Your task to perform on an android device: turn on sleep mode Image 0: 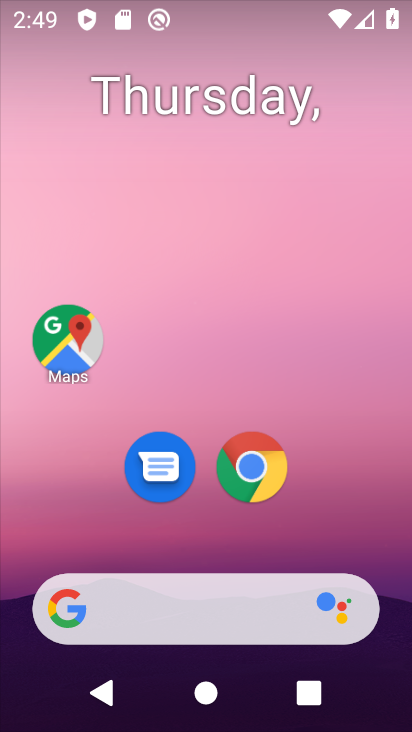
Step 0: drag from (214, 622) to (178, 200)
Your task to perform on an android device: turn on sleep mode Image 1: 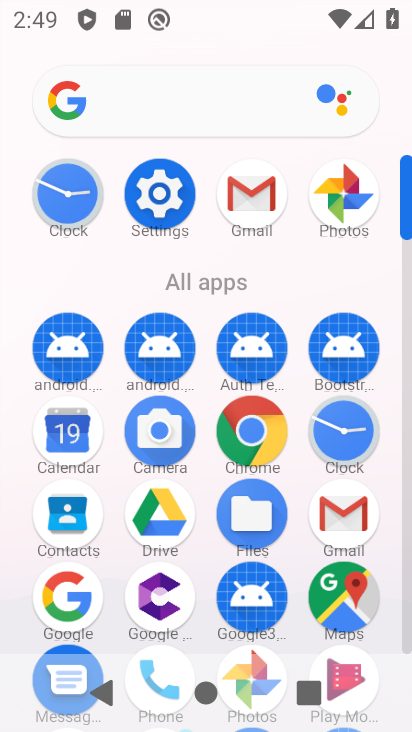
Step 1: click (150, 223)
Your task to perform on an android device: turn on sleep mode Image 2: 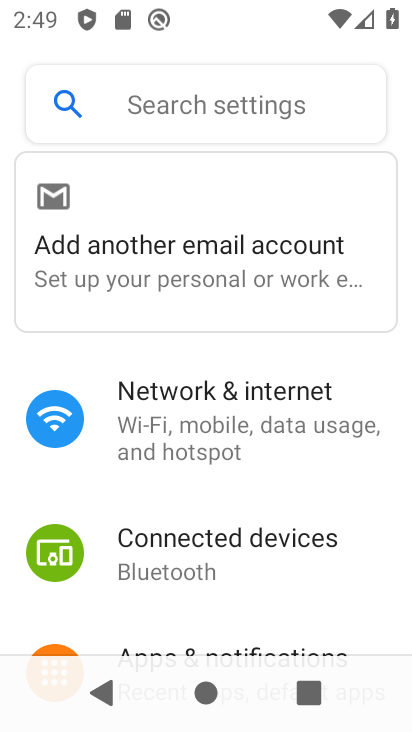
Step 2: drag from (226, 535) to (199, 124)
Your task to perform on an android device: turn on sleep mode Image 3: 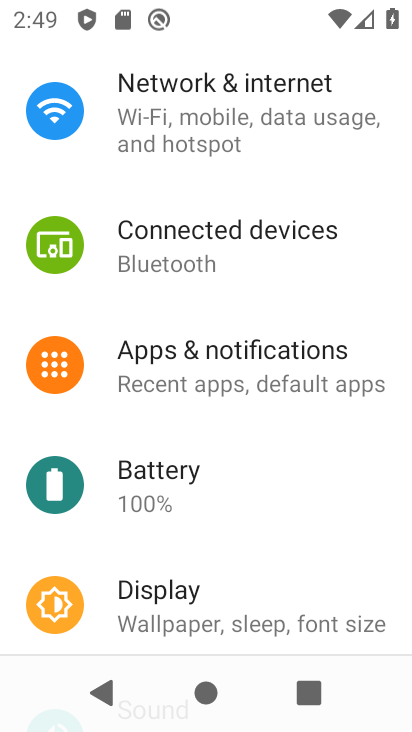
Step 3: drag from (169, 615) to (207, 50)
Your task to perform on an android device: turn on sleep mode Image 4: 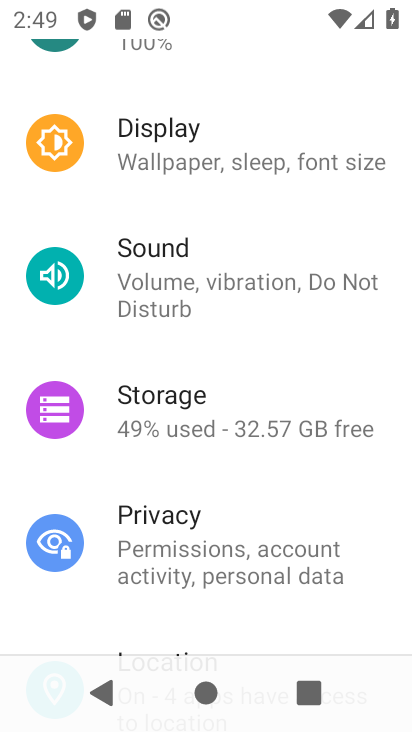
Step 4: drag from (236, 519) to (179, 0)
Your task to perform on an android device: turn on sleep mode Image 5: 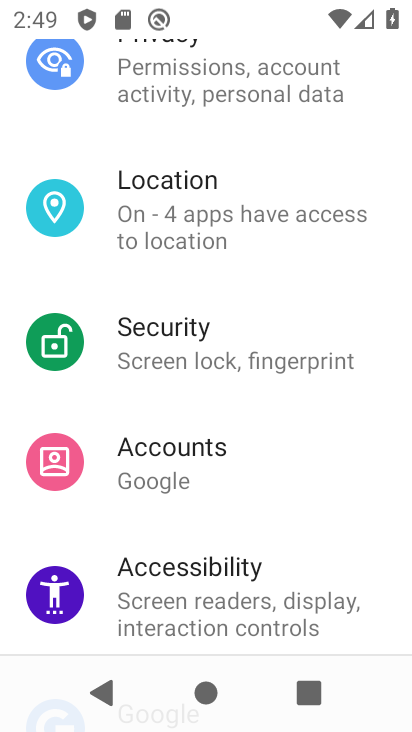
Step 5: drag from (220, 146) to (216, 714)
Your task to perform on an android device: turn on sleep mode Image 6: 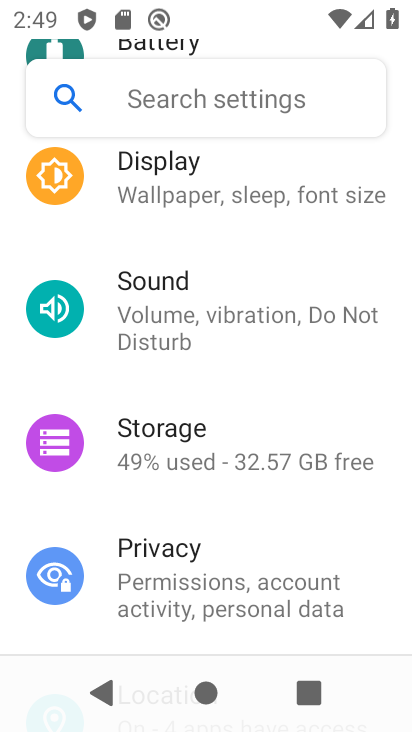
Step 6: click (154, 170)
Your task to perform on an android device: turn on sleep mode Image 7: 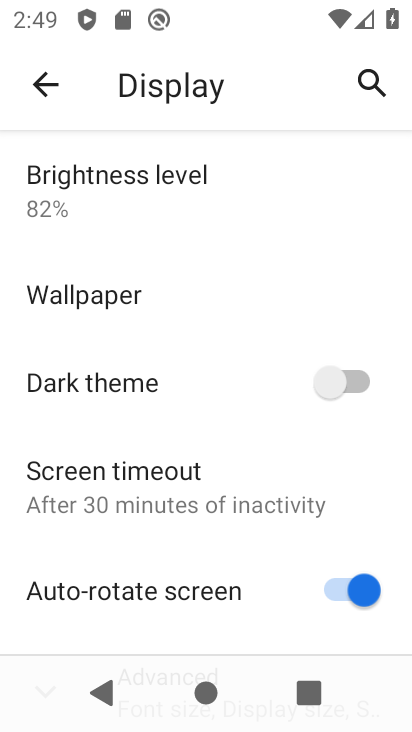
Step 7: drag from (195, 527) to (196, 164)
Your task to perform on an android device: turn on sleep mode Image 8: 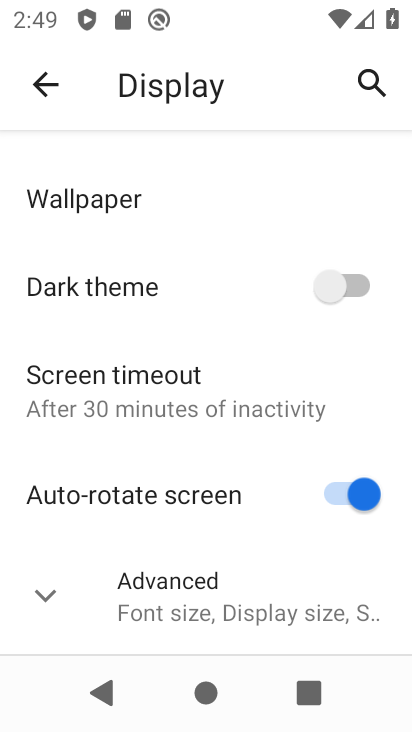
Step 8: click (205, 622)
Your task to perform on an android device: turn on sleep mode Image 9: 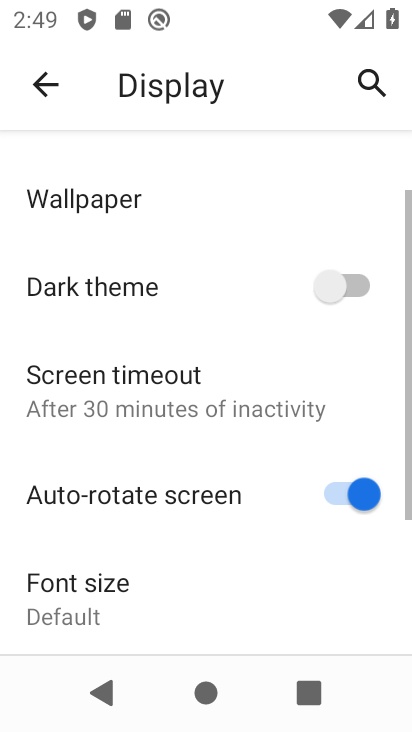
Step 9: task complete